Your task to perform on an android device: Turn off the flashlight Image 0: 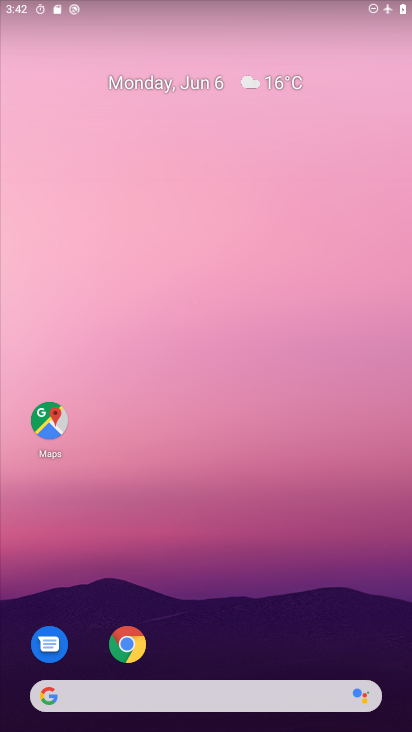
Step 0: drag from (274, 644) to (270, 63)
Your task to perform on an android device: Turn off the flashlight Image 1: 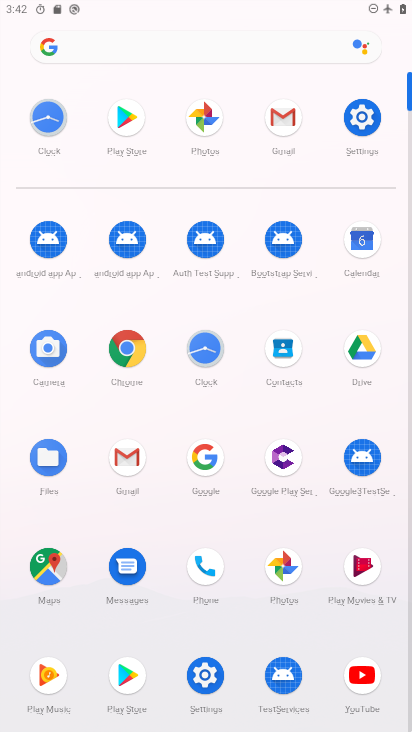
Step 1: click (364, 117)
Your task to perform on an android device: Turn off the flashlight Image 2: 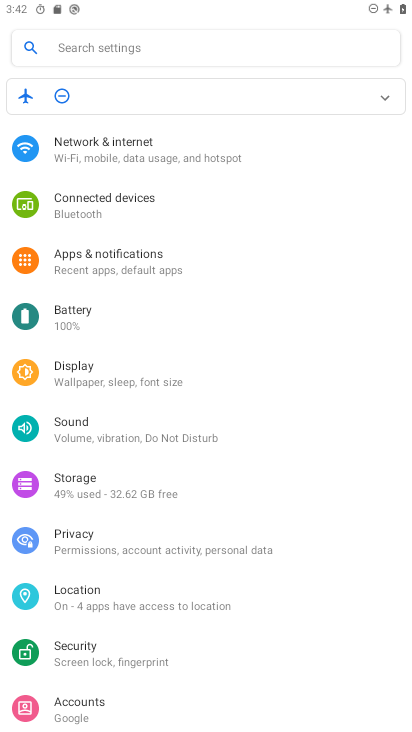
Step 2: drag from (118, 478) to (125, 263)
Your task to perform on an android device: Turn off the flashlight Image 3: 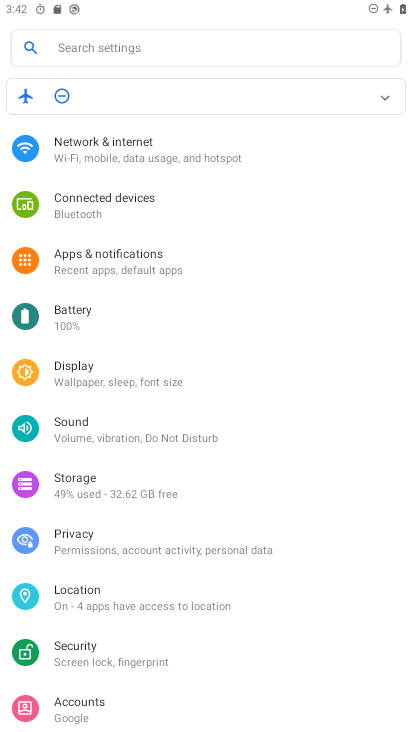
Step 3: click (103, 381)
Your task to perform on an android device: Turn off the flashlight Image 4: 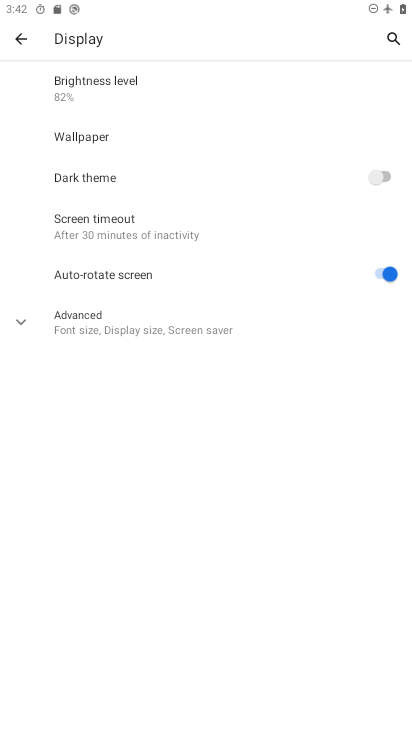
Step 4: click (130, 339)
Your task to perform on an android device: Turn off the flashlight Image 5: 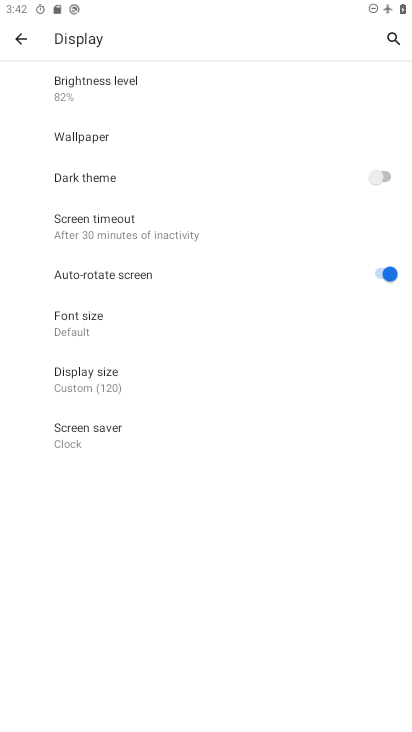
Step 5: task complete